Your task to perform on an android device: When is my next meeting? Image 0: 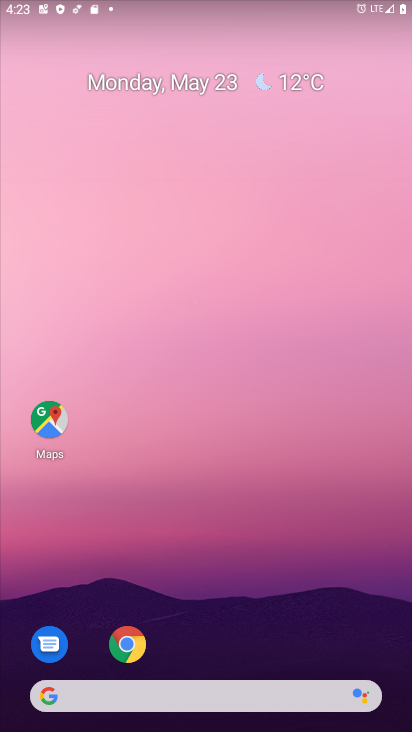
Step 0: drag from (234, 645) to (209, 241)
Your task to perform on an android device: When is my next meeting? Image 1: 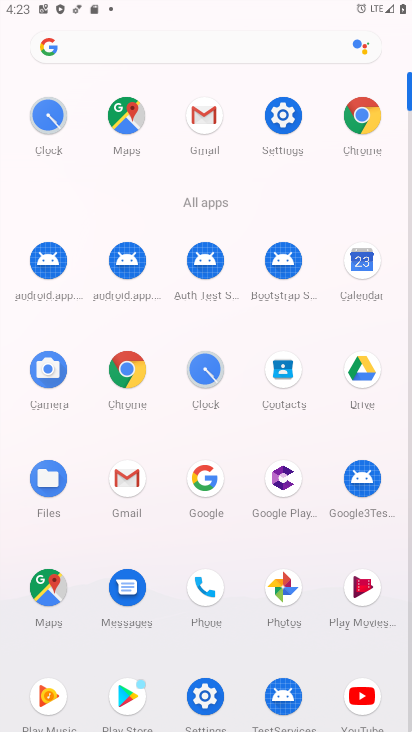
Step 1: click (357, 269)
Your task to perform on an android device: When is my next meeting? Image 2: 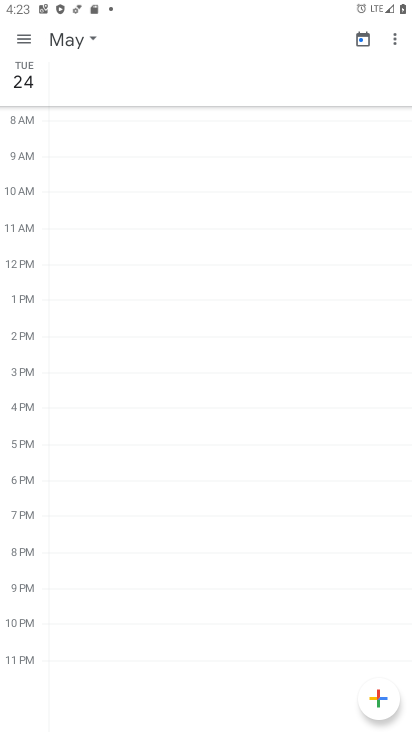
Step 2: click (21, 43)
Your task to perform on an android device: When is my next meeting? Image 3: 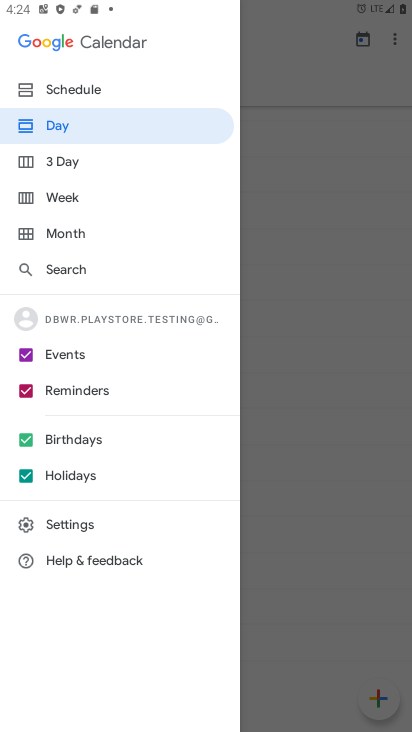
Step 3: click (75, 76)
Your task to perform on an android device: When is my next meeting? Image 4: 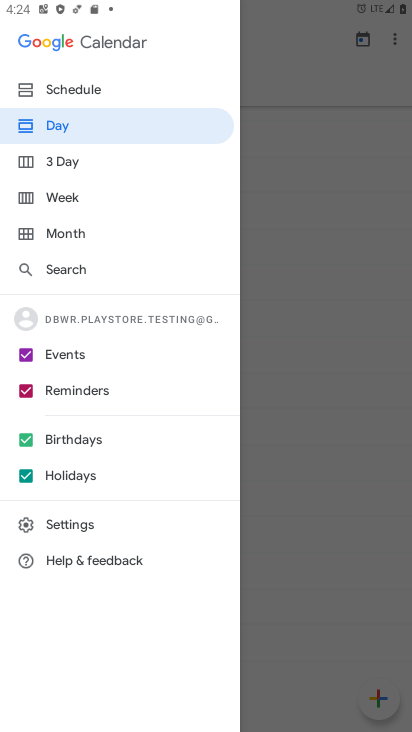
Step 4: click (37, 92)
Your task to perform on an android device: When is my next meeting? Image 5: 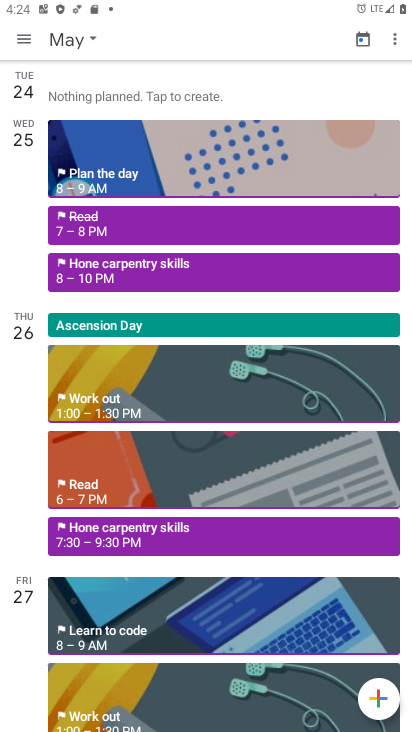
Step 5: task complete